Your task to perform on an android device: How much does the Sony TV cost? Image 0: 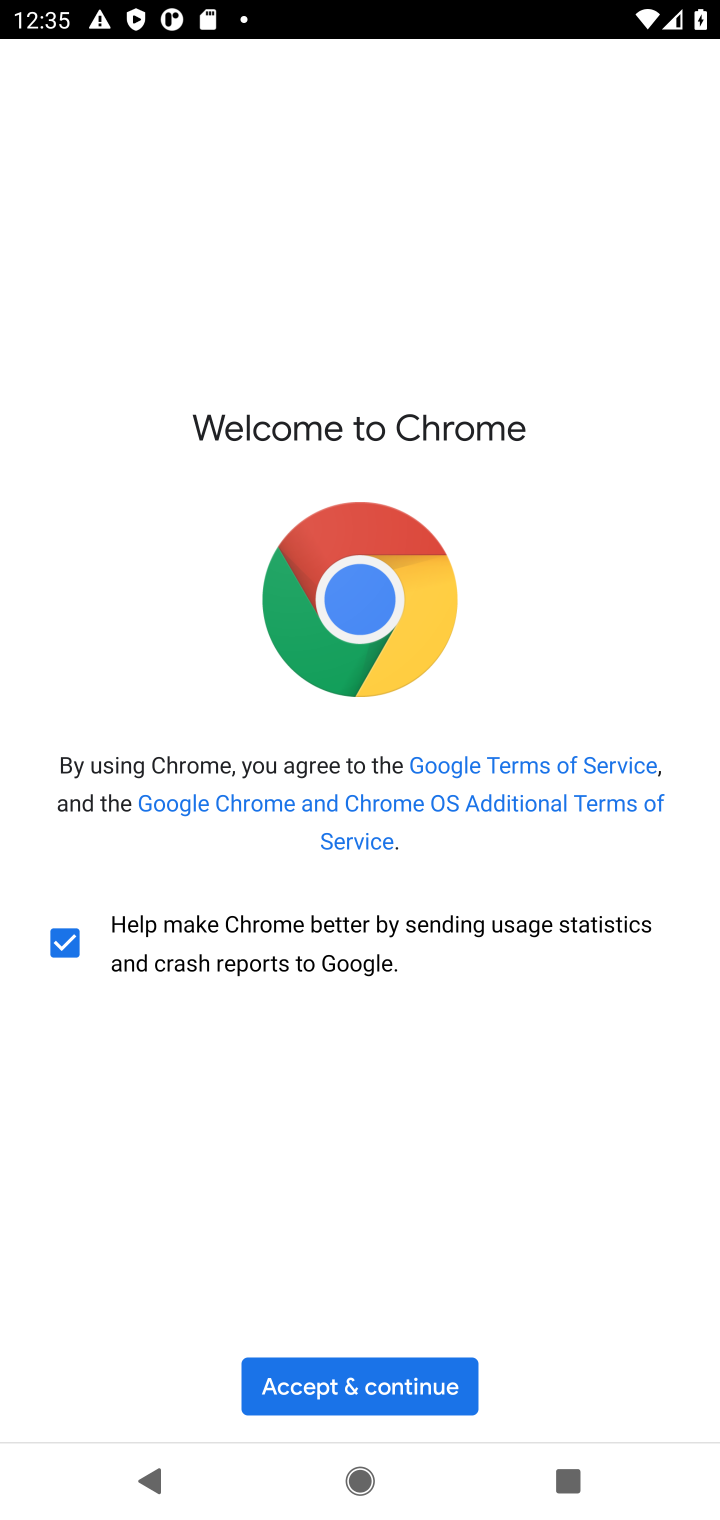
Step 0: task complete